Your task to perform on an android device: Open Android settings Image 0: 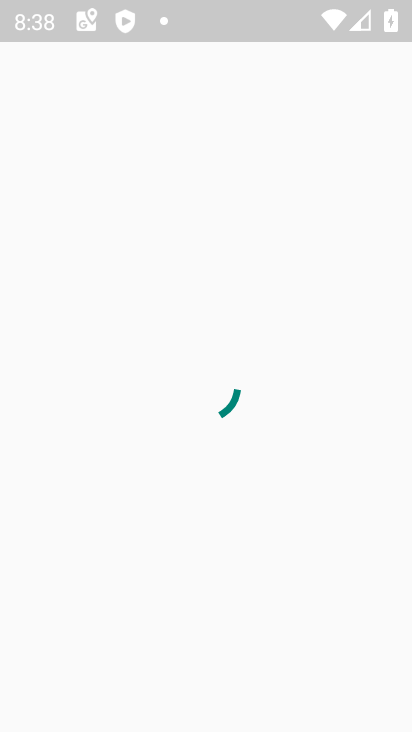
Step 0: press home button
Your task to perform on an android device: Open Android settings Image 1: 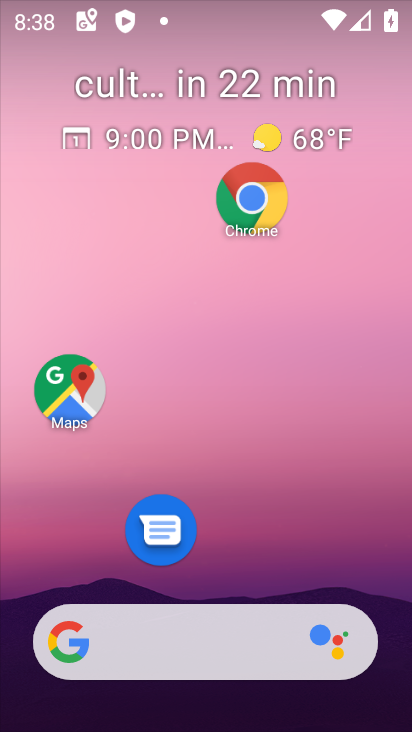
Step 1: drag from (236, 516) to (224, 165)
Your task to perform on an android device: Open Android settings Image 2: 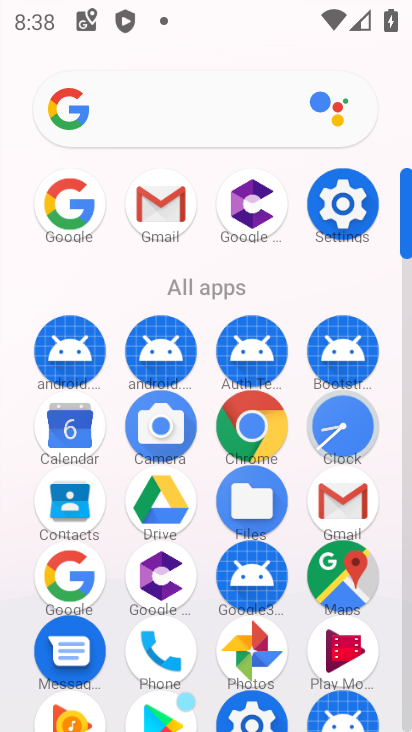
Step 2: click (341, 207)
Your task to perform on an android device: Open Android settings Image 3: 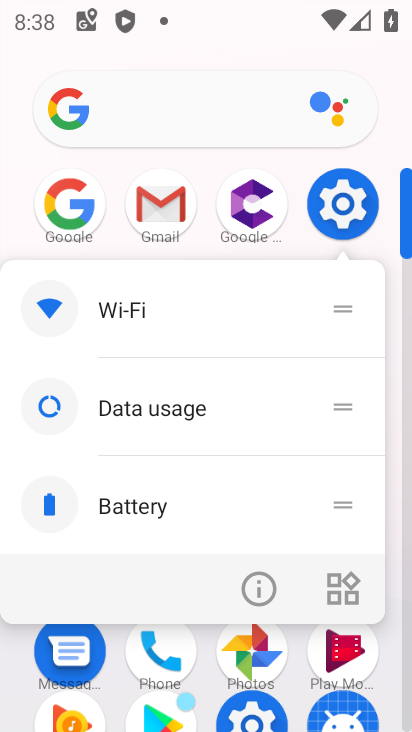
Step 3: click (341, 207)
Your task to perform on an android device: Open Android settings Image 4: 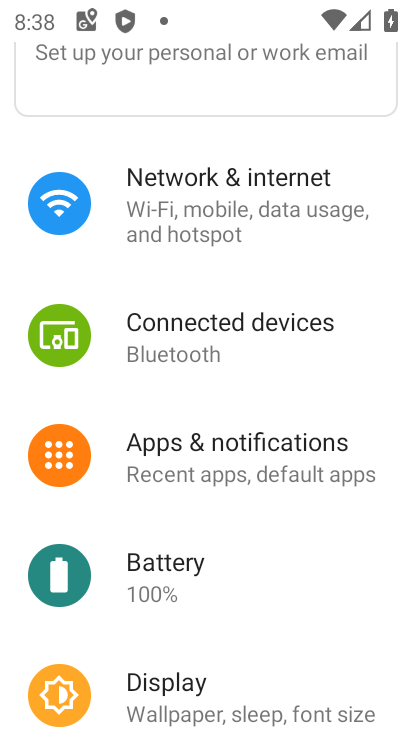
Step 4: drag from (224, 589) to (245, 250)
Your task to perform on an android device: Open Android settings Image 5: 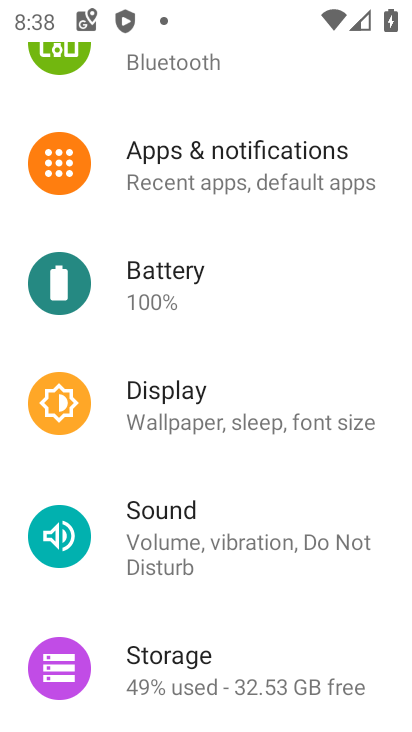
Step 5: drag from (249, 495) to (267, 218)
Your task to perform on an android device: Open Android settings Image 6: 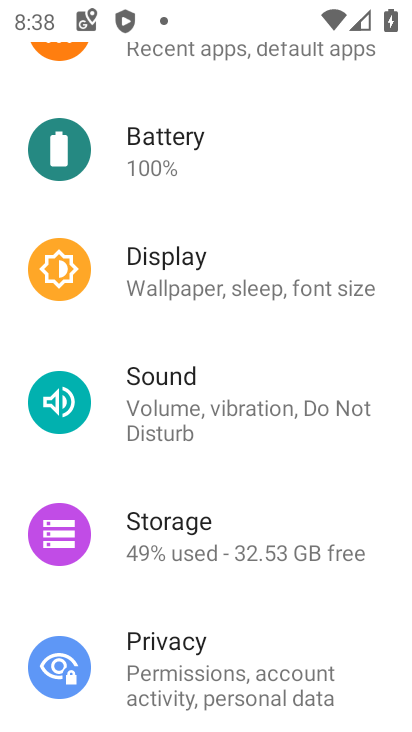
Step 6: drag from (230, 557) to (256, 210)
Your task to perform on an android device: Open Android settings Image 7: 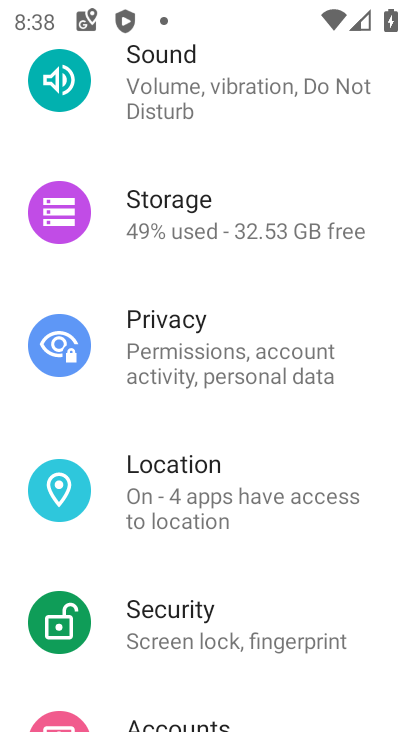
Step 7: drag from (230, 534) to (265, 188)
Your task to perform on an android device: Open Android settings Image 8: 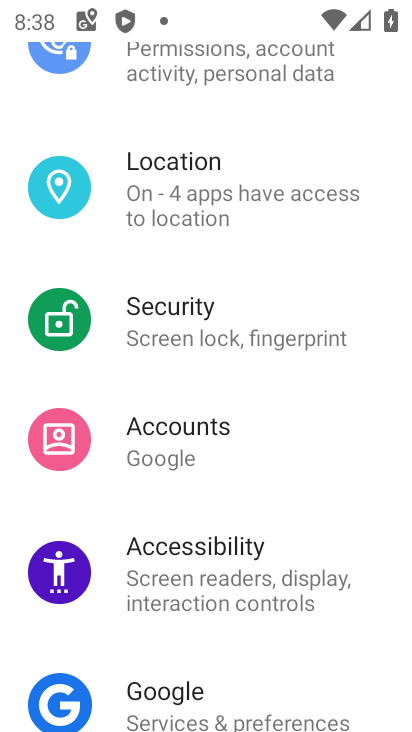
Step 8: drag from (263, 543) to (298, 252)
Your task to perform on an android device: Open Android settings Image 9: 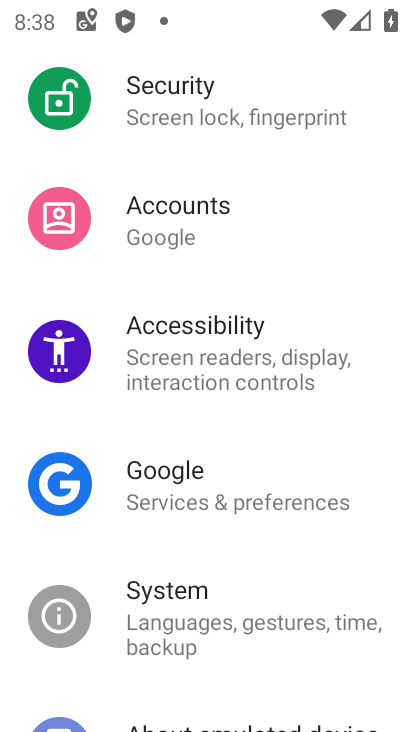
Step 9: drag from (214, 616) to (254, 272)
Your task to perform on an android device: Open Android settings Image 10: 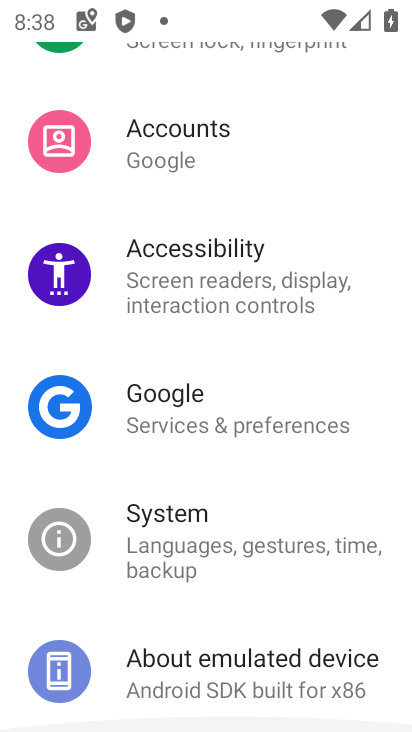
Step 10: drag from (240, 590) to (240, 233)
Your task to perform on an android device: Open Android settings Image 11: 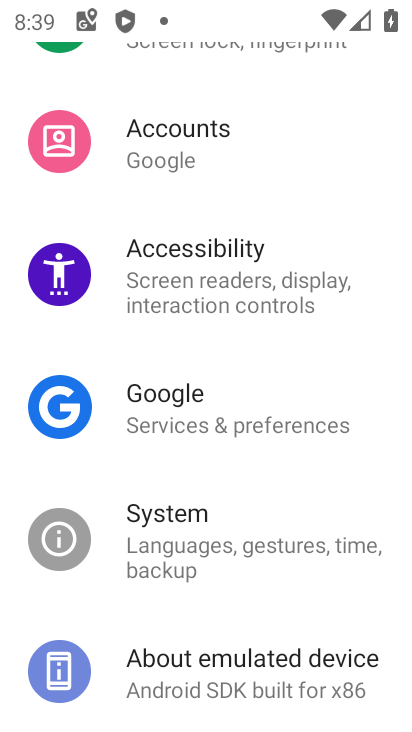
Step 11: drag from (228, 215) to (246, 552)
Your task to perform on an android device: Open Android settings Image 12: 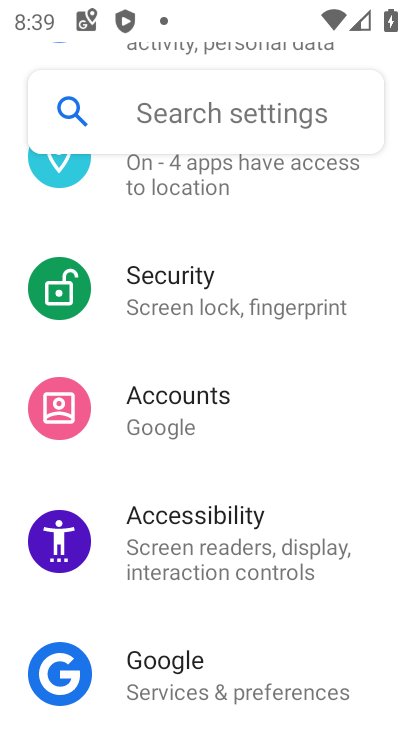
Step 12: click (219, 540)
Your task to perform on an android device: Open Android settings Image 13: 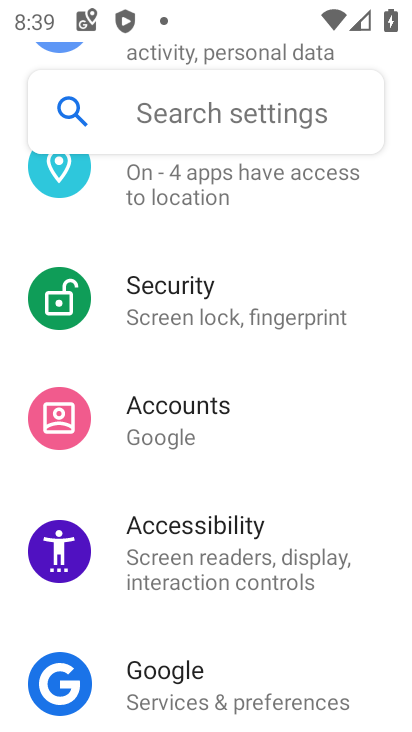
Step 13: task complete